Your task to perform on an android device: change the clock display to digital Image 0: 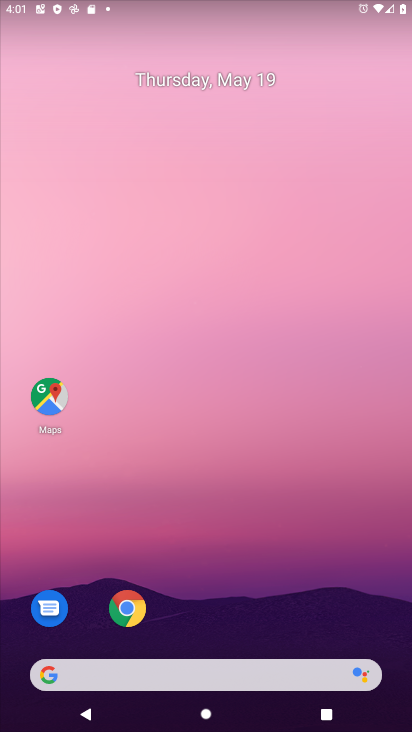
Step 0: drag from (239, 599) to (227, 66)
Your task to perform on an android device: change the clock display to digital Image 1: 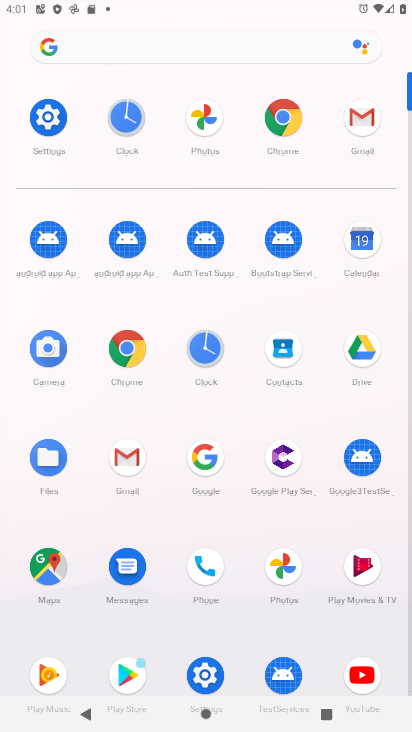
Step 1: click (130, 124)
Your task to perform on an android device: change the clock display to digital Image 2: 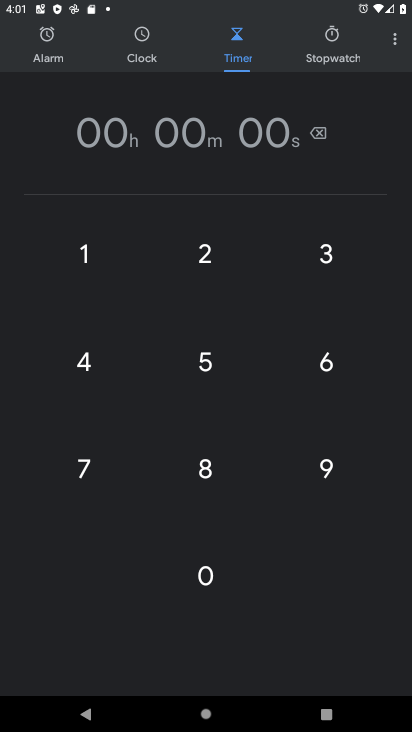
Step 2: click (388, 30)
Your task to perform on an android device: change the clock display to digital Image 3: 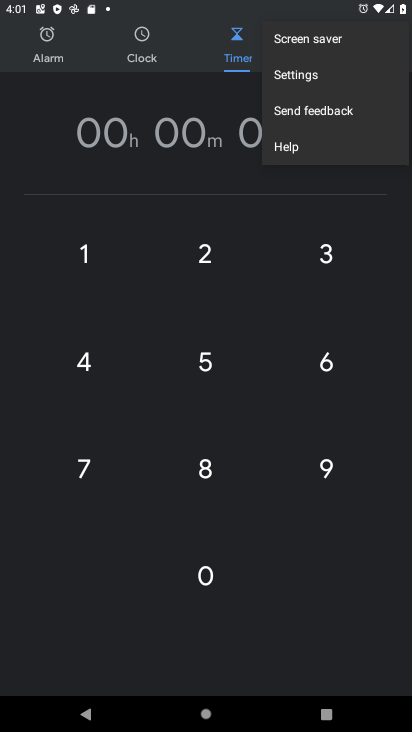
Step 3: click (354, 76)
Your task to perform on an android device: change the clock display to digital Image 4: 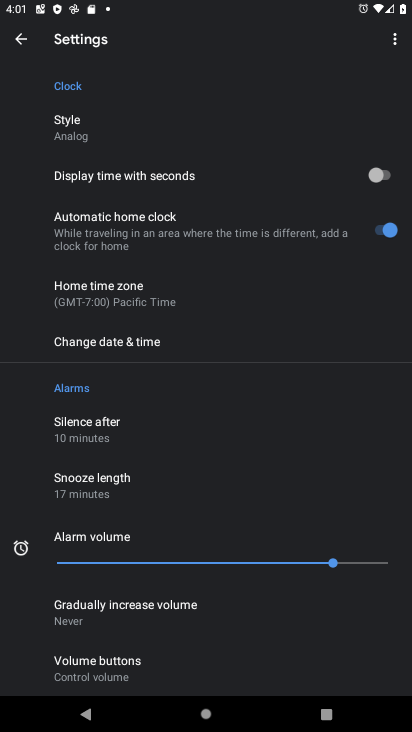
Step 4: click (97, 146)
Your task to perform on an android device: change the clock display to digital Image 5: 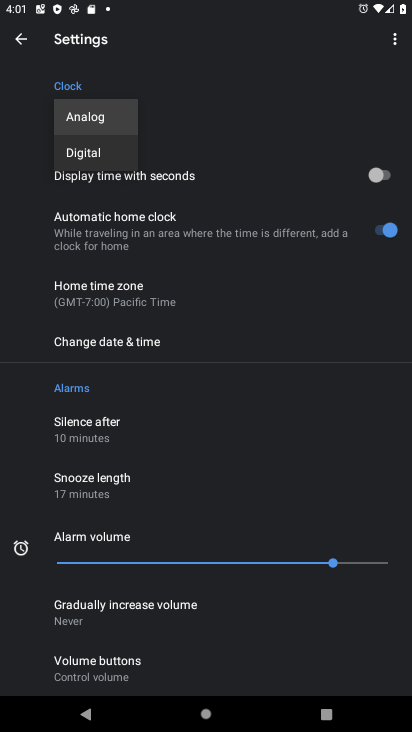
Step 5: click (89, 162)
Your task to perform on an android device: change the clock display to digital Image 6: 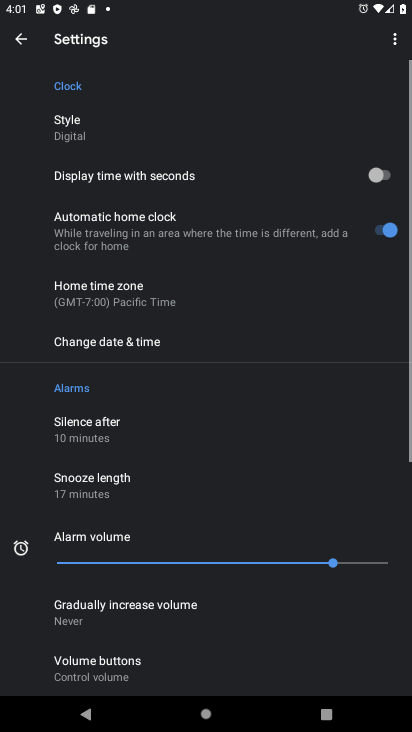
Step 6: task complete